Your task to perform on an android device: What is the recent news? Image 0: 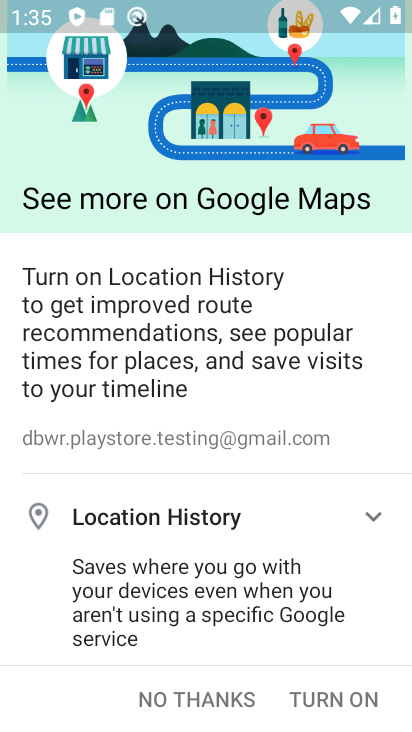
Step 0: drag from (203, 455) to (215, 264)
Your task to perform on an android device: What is the recent news? Image 1: 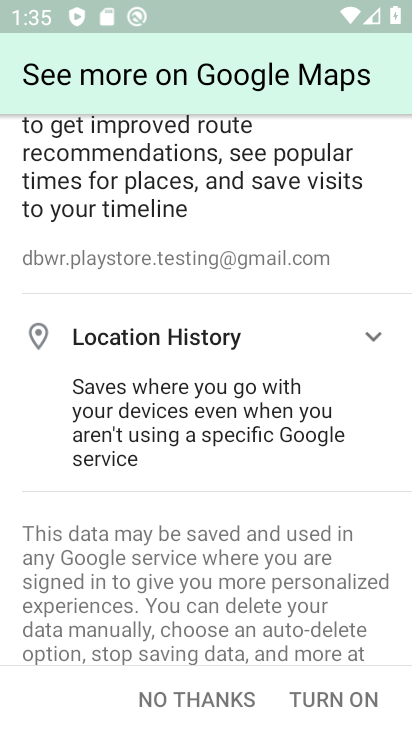
Step 1: drag from (183, 570) to (248, 161)
Your task to perform on an android device: What is the recent news? Image 2: 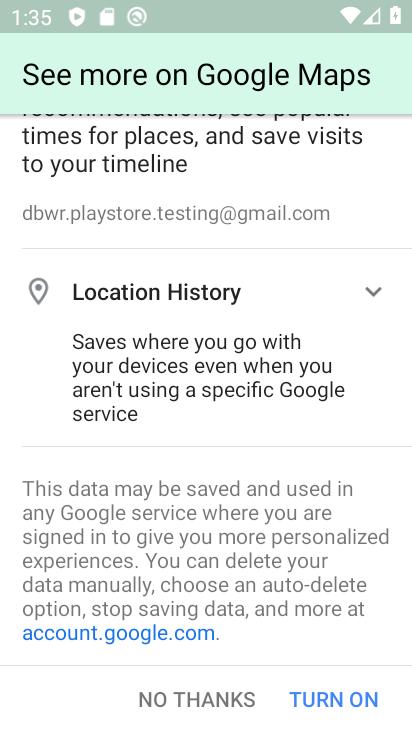
Step 2: click (209, 697)
Your task to perform on an android device: What is the recent news? Image 3: 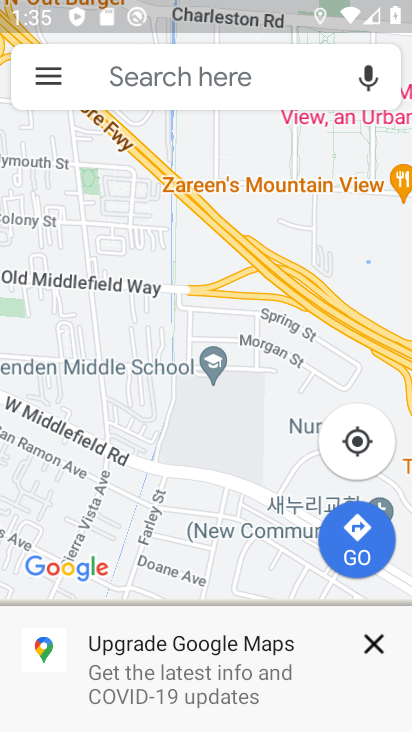
Step 3: press home button
Your task to perform on an android device: What is the recent news? Image 4: 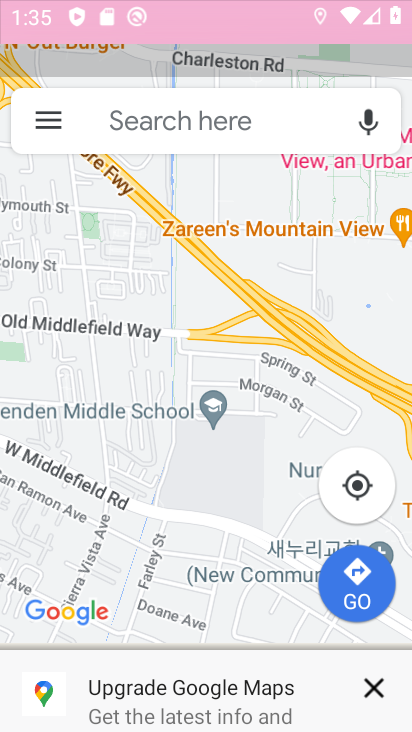
Step 4: drag from (262, 588) to (244, 3)
Your task to perform on an android device: What is the recent news? Image 5: 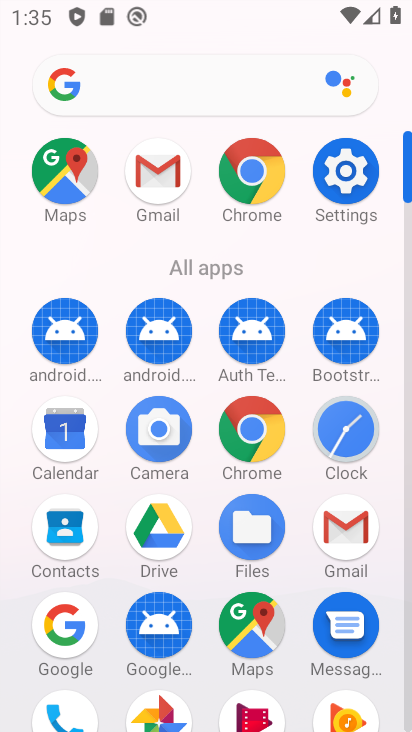
Step 5: click (163, 98)
Your task to perform on an android device: What is the recent news? Image 6: 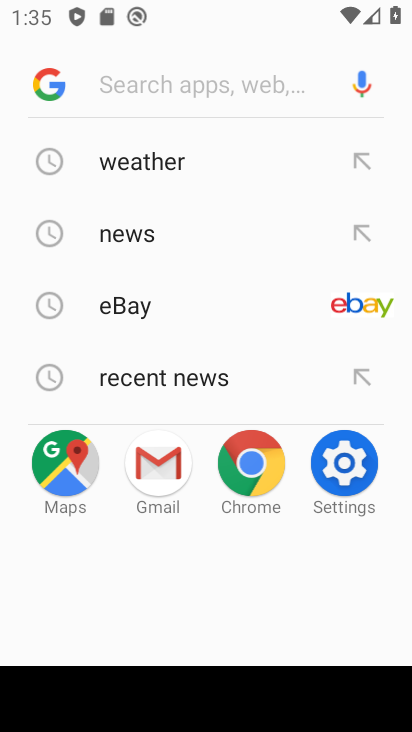
Step 6: click (148, 372)
Your task to perform on an android device: What is the recent news? Image 7: 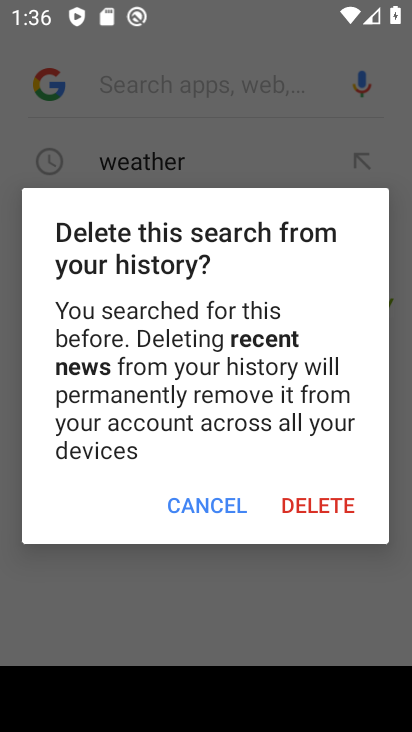
Step 7: click (186, 506)
Your task to perform on an android device: What is the recent news? Image 8: 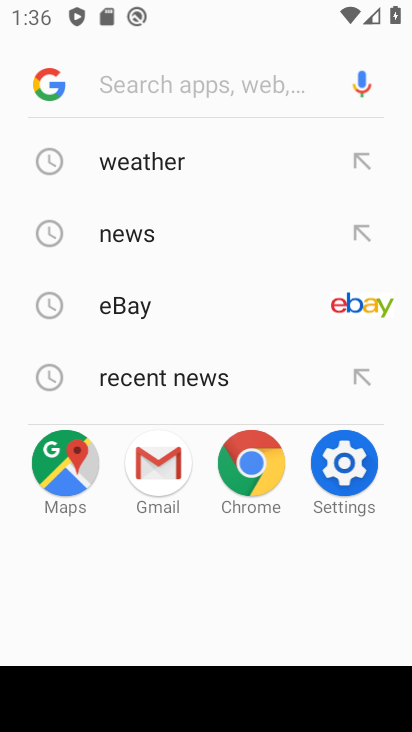
Step 8: click (43, 379)
Your task to perform on an android device: What is the recent news? Image 9: 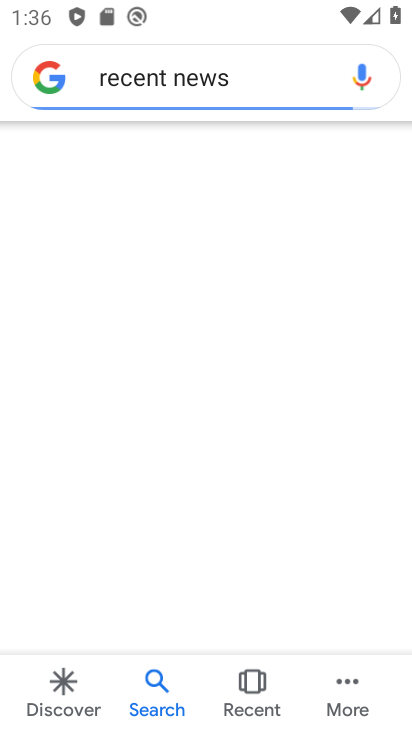
Step 9: task complete